Your task to perform on an android device: Go to ESPN.com Image 0: 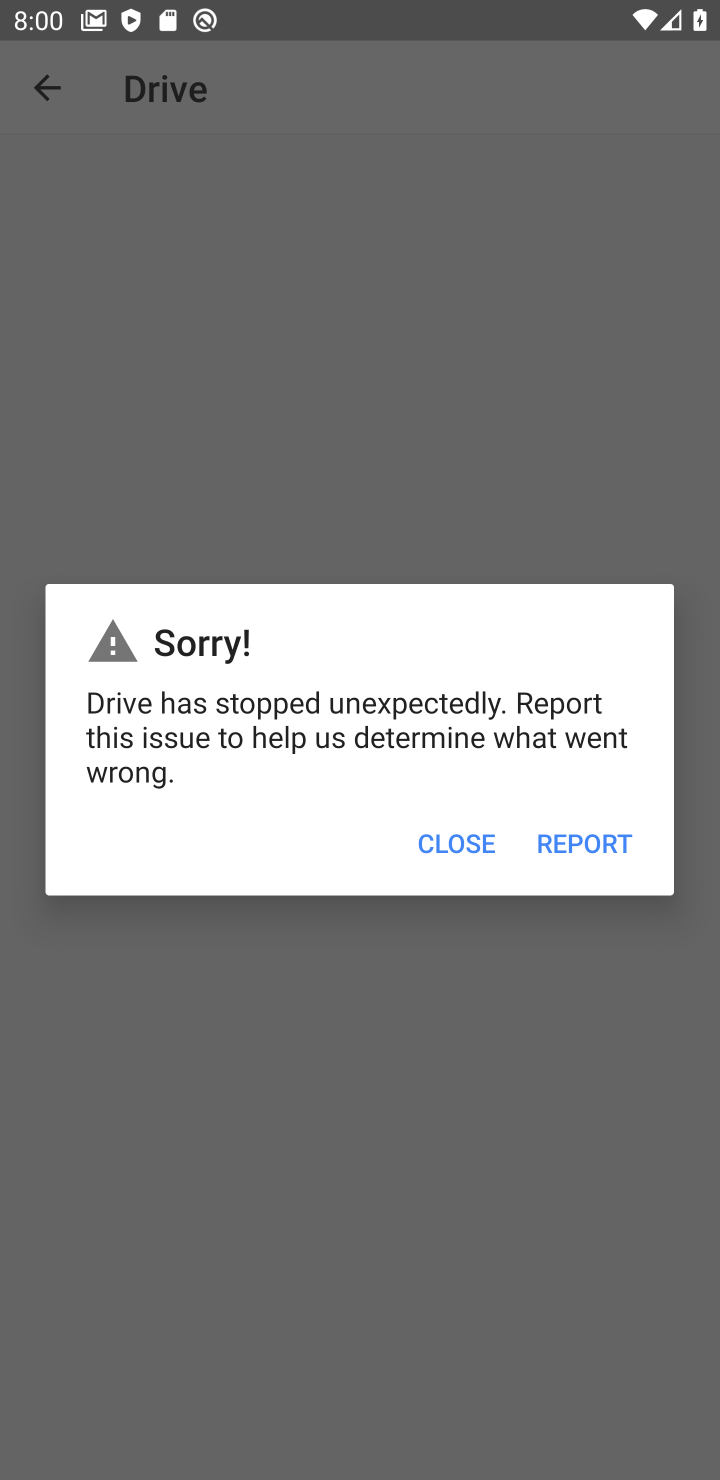
Step 0: press home button
Your task to perform on an android device: Go to ESPN.com Image 1: 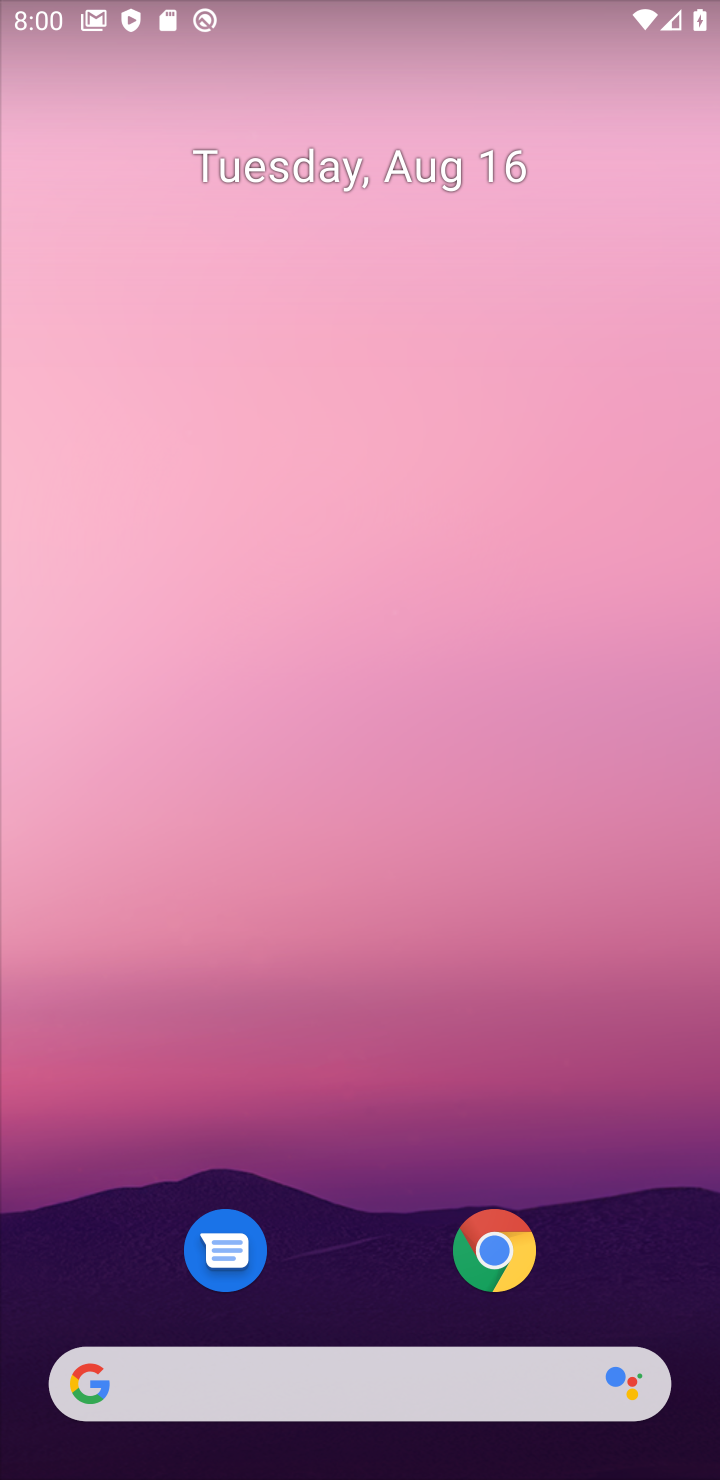
Step 1: click (379, 1398)
Your task to perform on an android device: Go to ESPN.com Image 2: 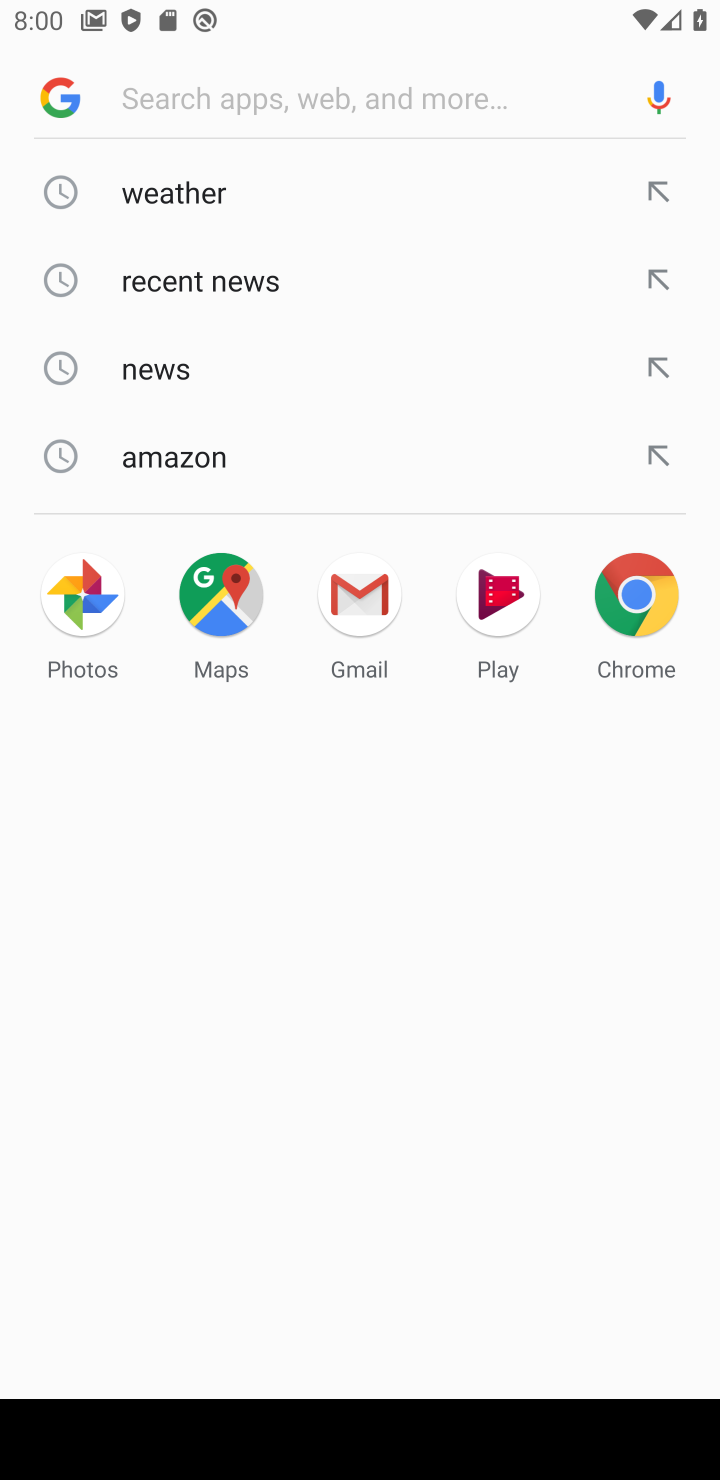
Step 2: type "espn"
Your task to perform on an android device: Go to ESPN.com Image 3: 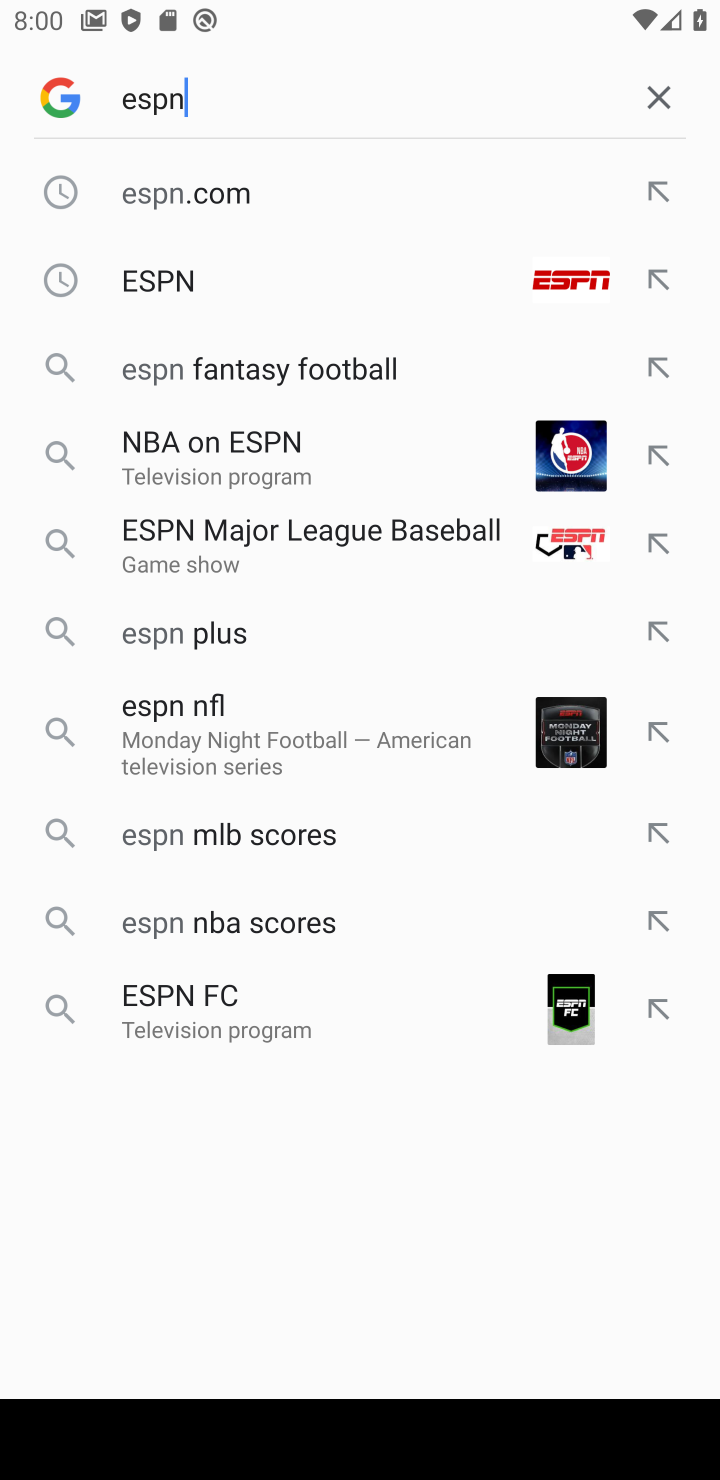
Step 3: click (583, 285)
Your task to perform on an android device: Go to ESPN.com Image 4: 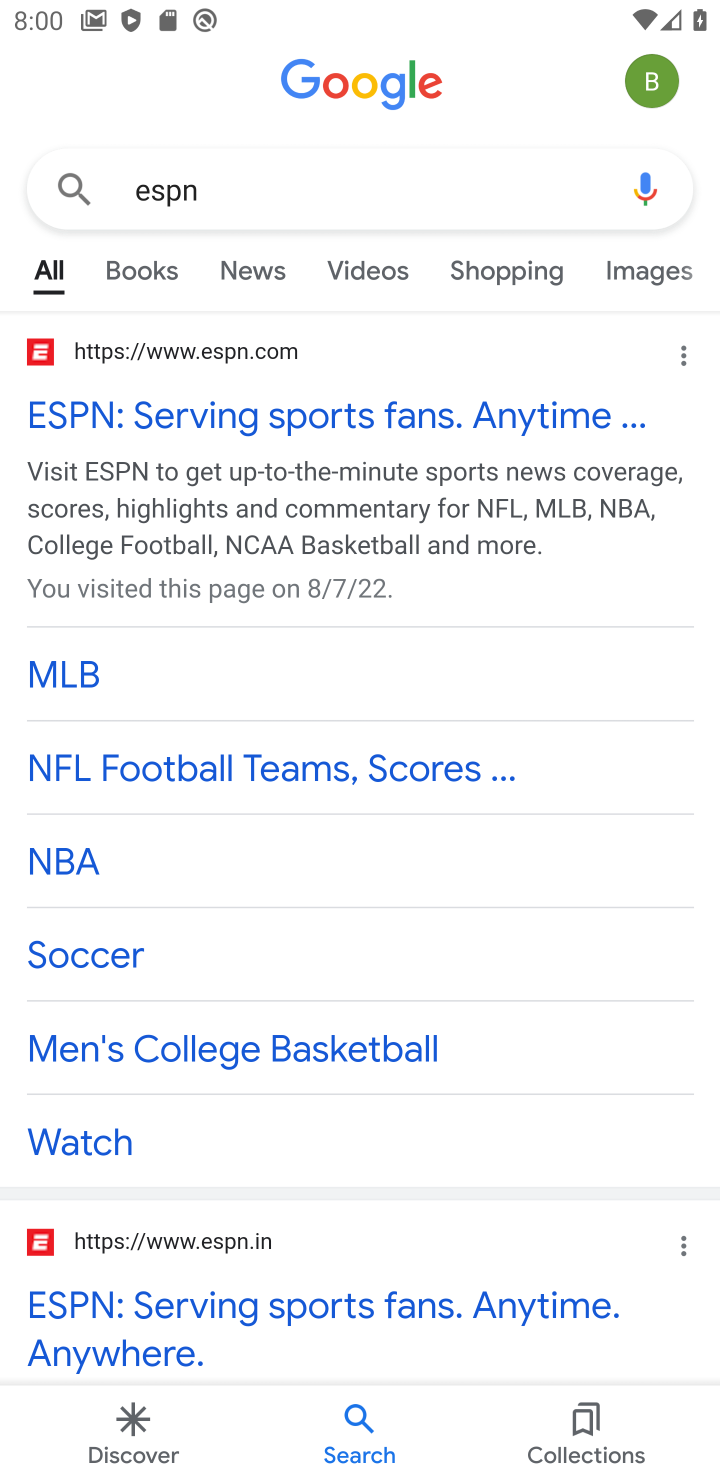
Step 4: click (479, 236)
Your task to perform on an android device: Go to ESPN.com Image 5: 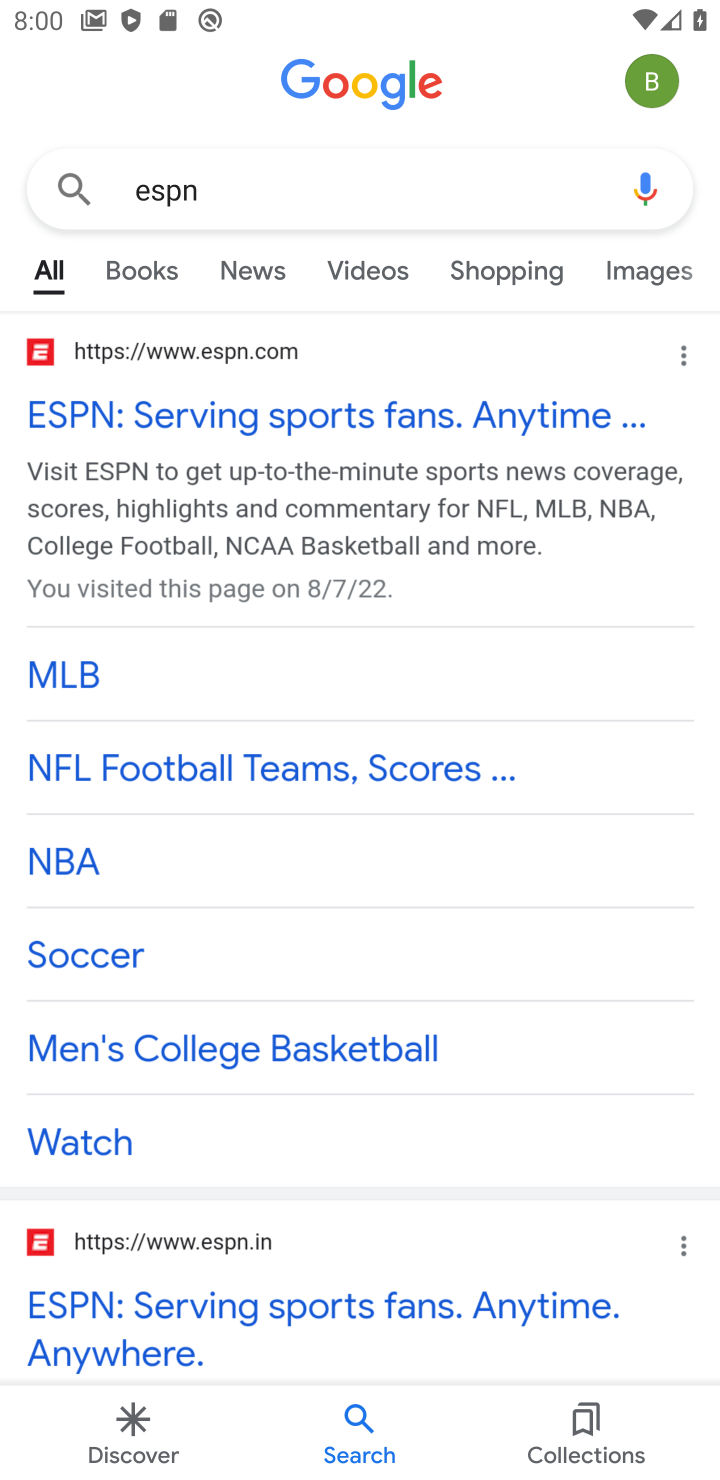
Step 5: click (169, 390)
Your task to perform on an android device: Go to ESPN.com Image 6: 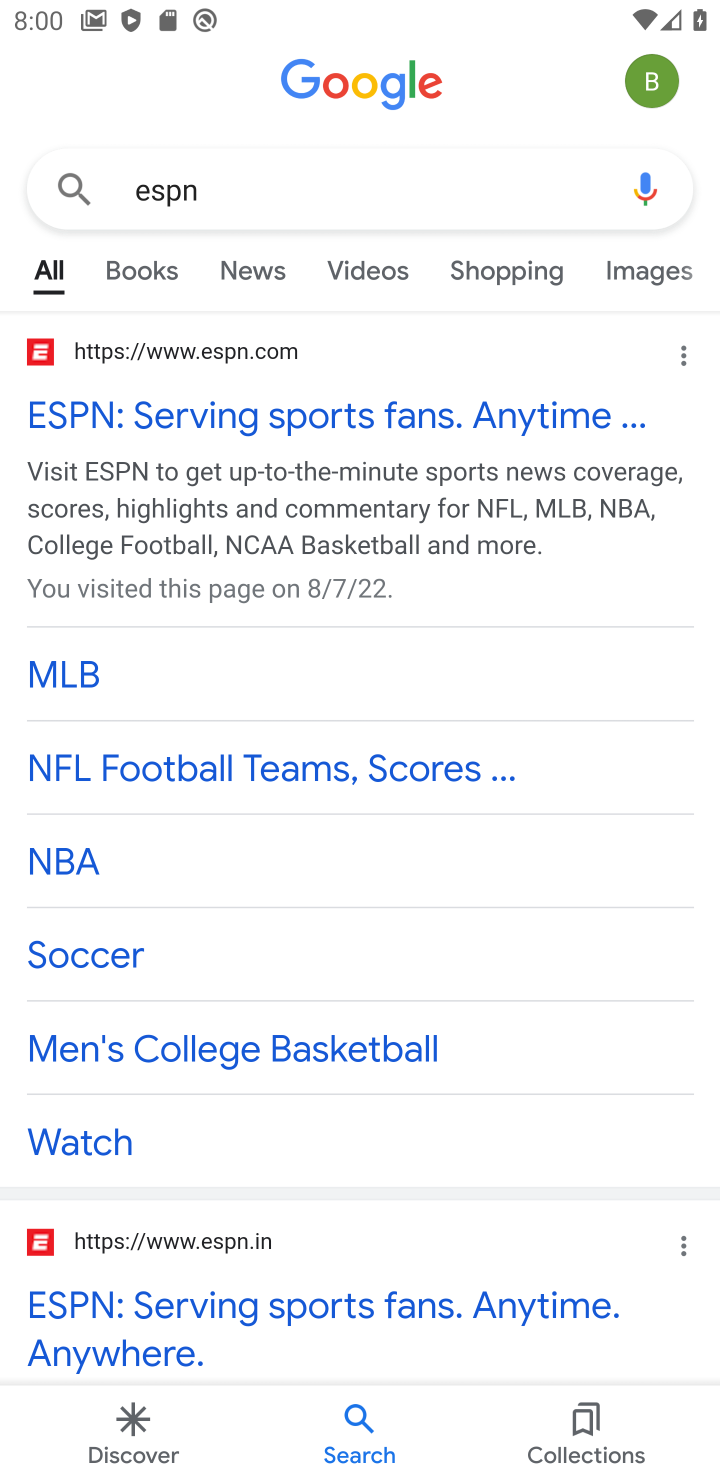
Step 6: click (176, 422)
Your task to perform on an android device: Go to ESPN.com Image 7: 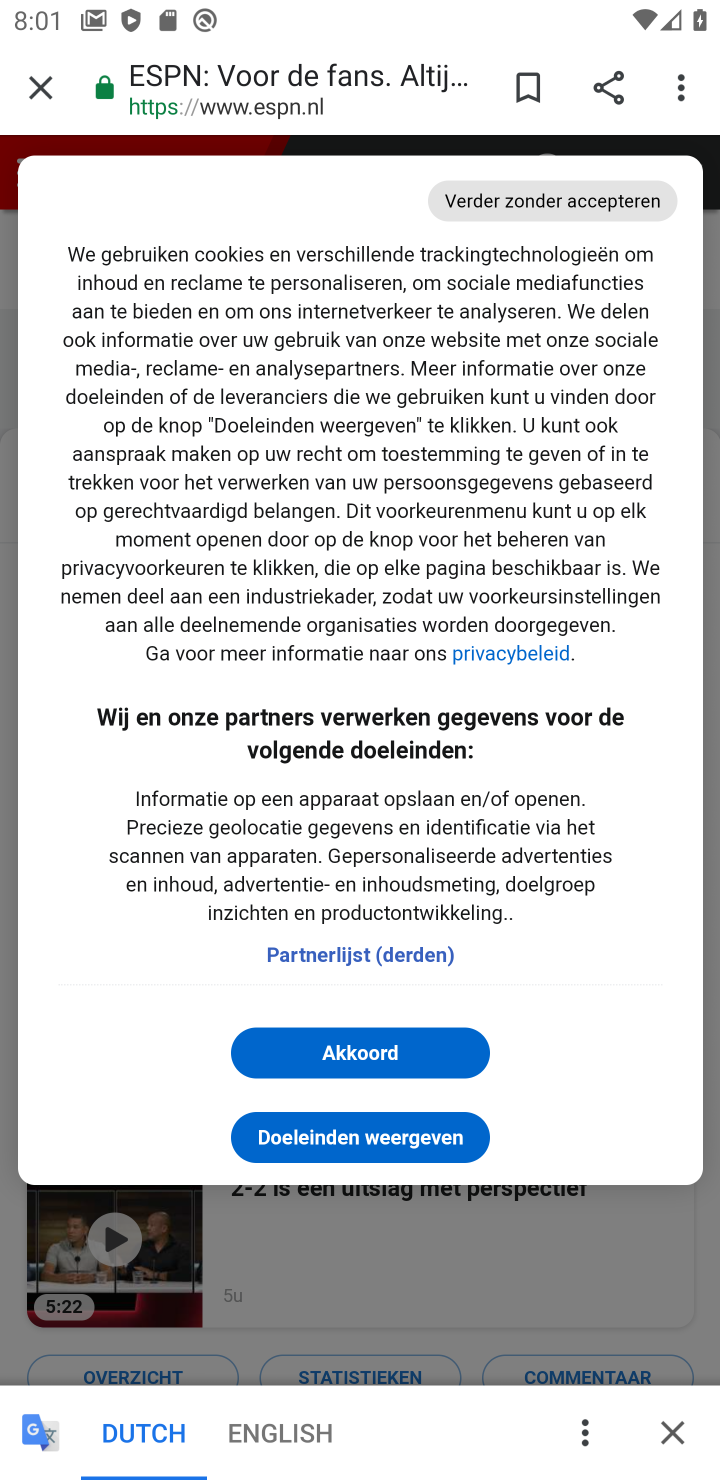
Step 7: task complete